Your task to perform on an android device: Open Reddit.com Image 0: 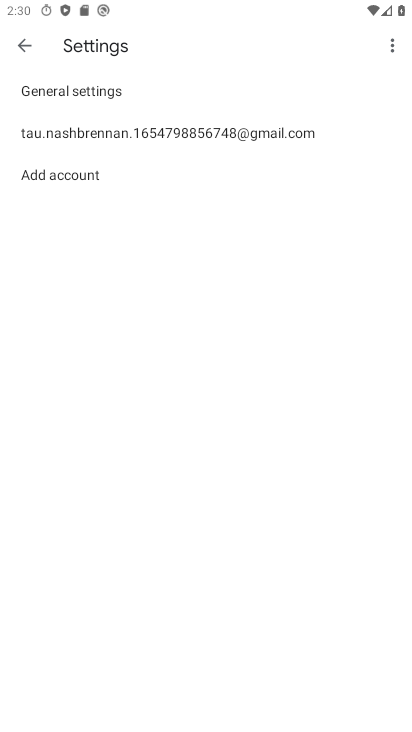
Step 0: press home button
Your task to perform on an android device: Open Reddit.com Image 1: 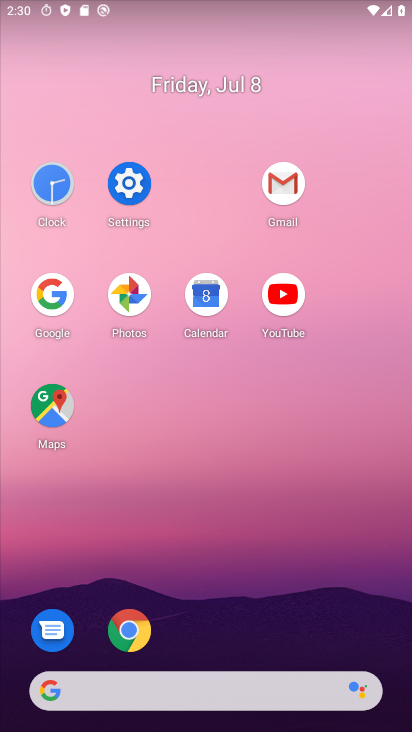
Step 1: click (131, 624)
Your task to perform on an android device: Open Reddit.com Image 2: 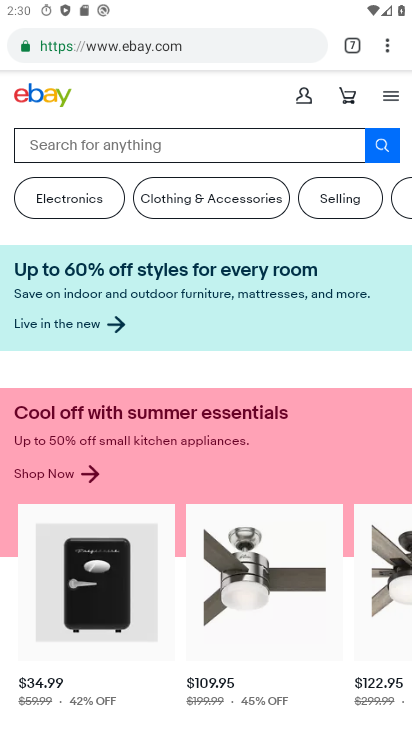
Step 2: click (355, 47)
Your task to perform on an android device: Open Reddit.com Image 3: 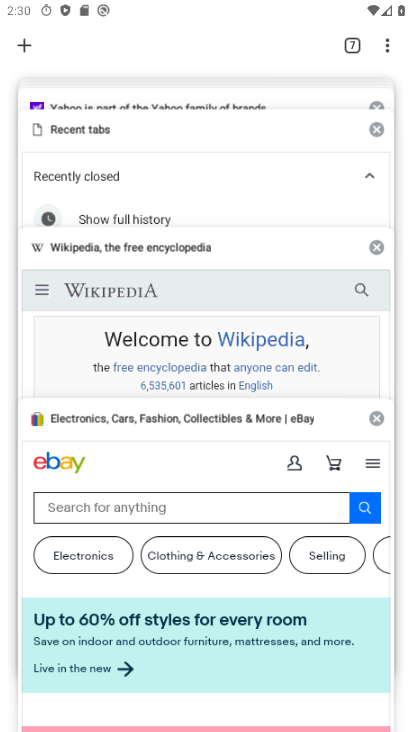
Step 3: drag from (247, 210) to (147, 519)
Your task to perform on an android device: Open Reddit.com Image 4: 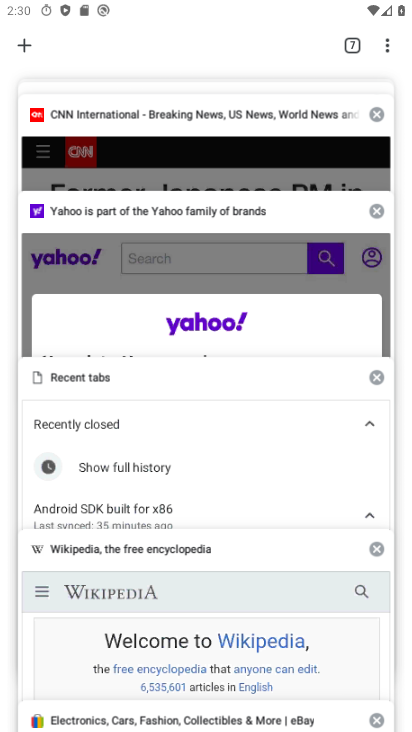
Step 4: drag from (166, 169) to (153, 482)
Your task to perform on an android device: Open Reddit.com Image 5: 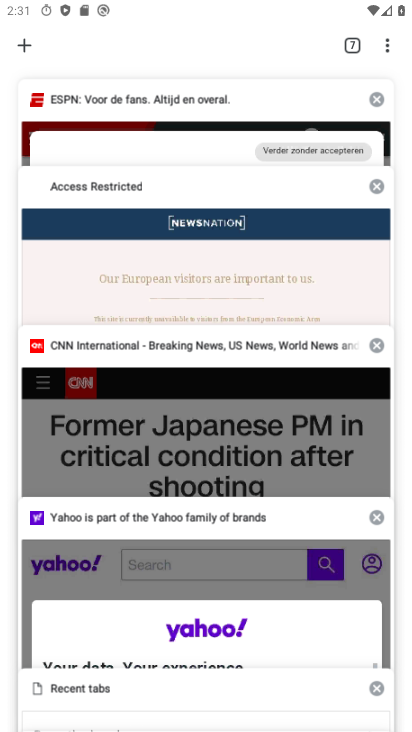
Step 5: click (29, 47)
Your task to perform on an android device: Open Reddit.com Image 6: 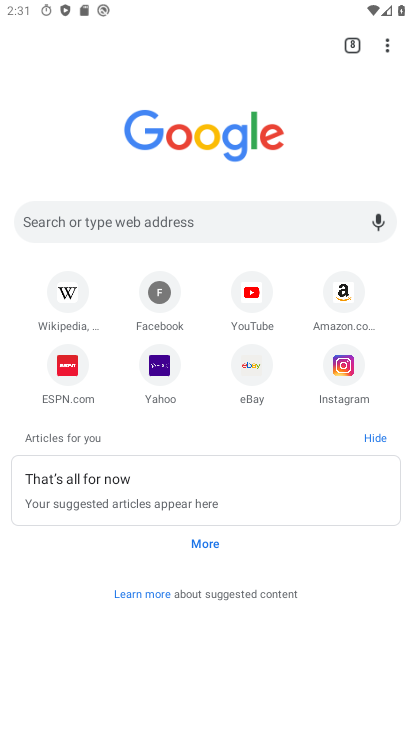
Step 6: click (217, 220)
Your task to perform on an android device: Open Reddit.com Image 7: 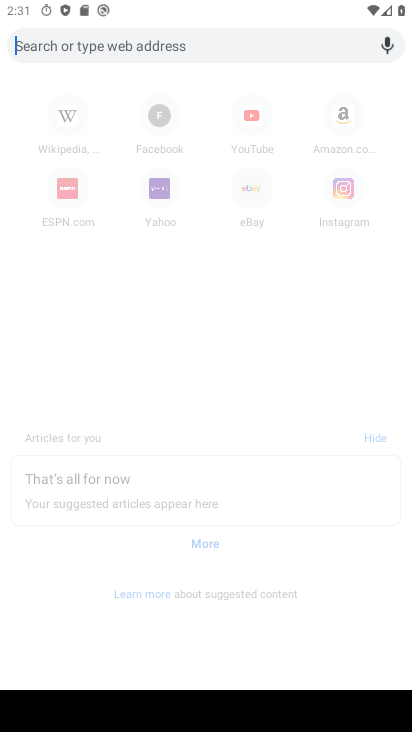
Step 7: type "reddit"
Your task to perform on an android device: Open Reddit.com Image 8: 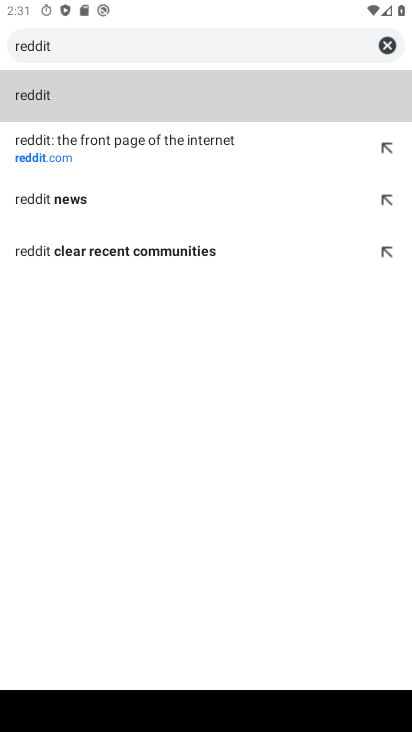
Step 8: click (81, 160)
Your task to perform on an android device: Open Reddit.com Image 9: 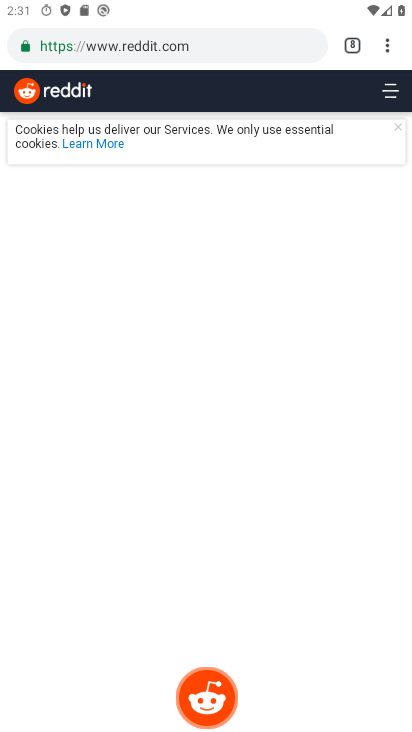
Step 9: task complete